Your task to perform on an android device: Go to calendar. Show me events next week Image 0: 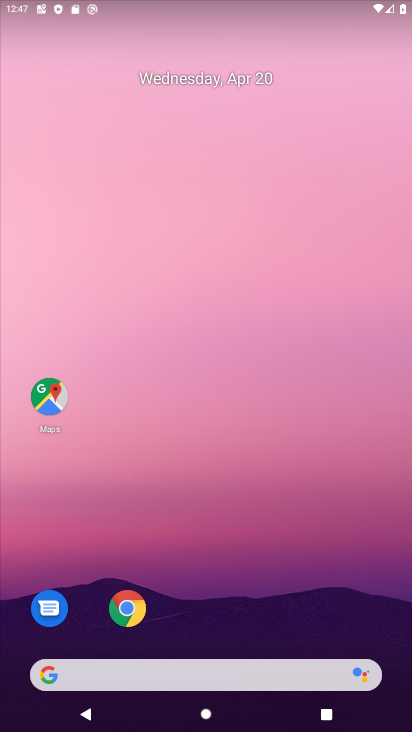
Step 0: drag from (331, 555) to (205, 207)
Your task to perform on an android device: Go to calendar. Show me events next week Image 1: 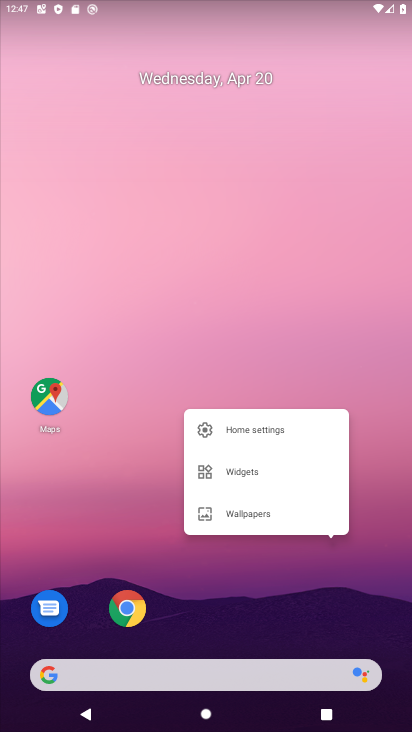
Step 1: click (385, 504)
Your task to perform on an android device: Go to calendar. Show me events next week Image 2: 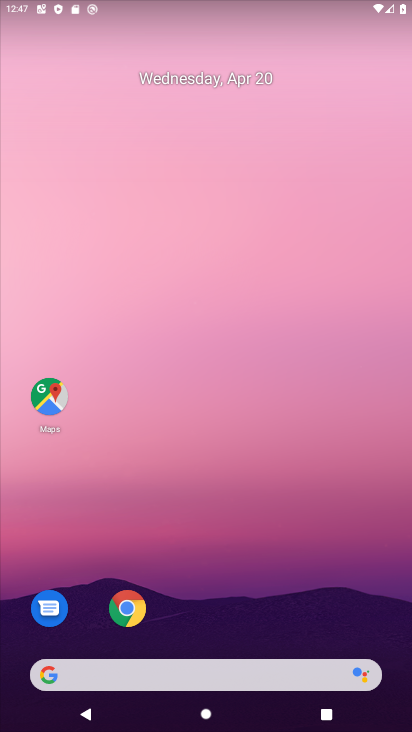
Step 2: drag from (337, 608) to (252, 311)
Your task to perform on an android device: Go to calendar. Show me events next week Image 3: 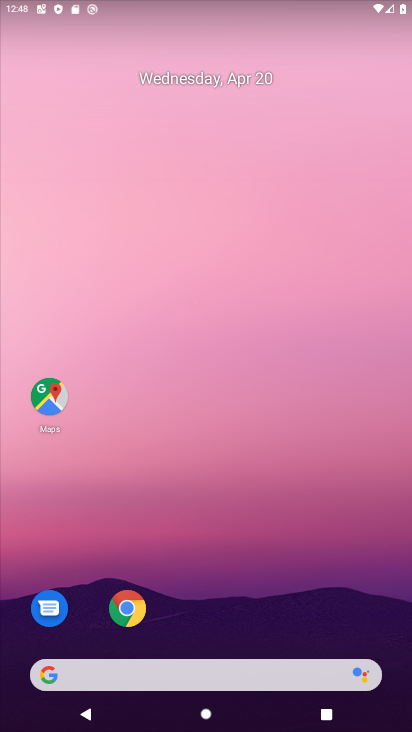
Step 3: drag from (200, 612) to (153, 318)
Your task to perform on an android device: Go to calendar. Show me events next week Image 4: 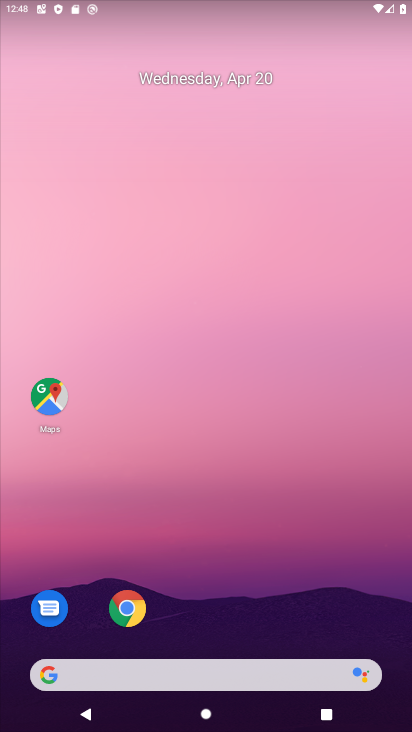
Step 4: drag from (238, 591) to (198, 311)
Your task to perform on an android device: Go to calendar. Show me events next week Image 5: 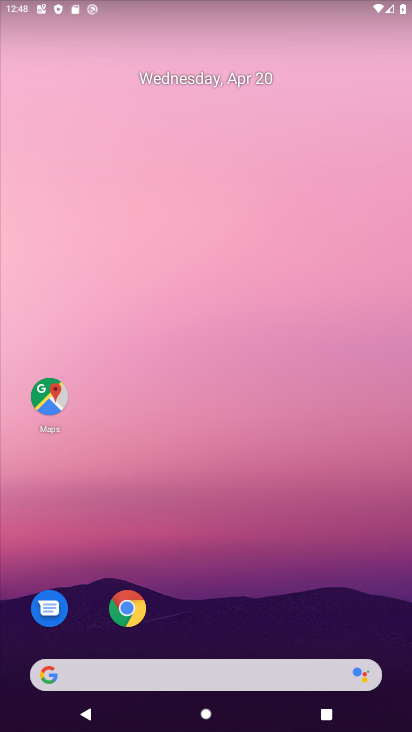
Step 5: drag from (230, 558) to (238, 261)
Your task to perform on an android device: Go to calendar. Show me events next week Image 6: 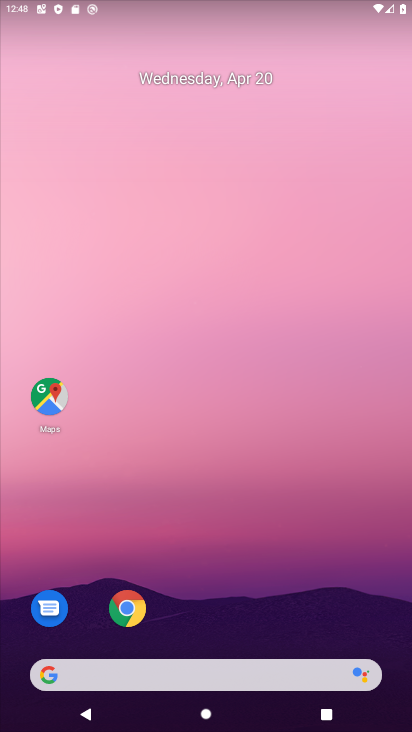
Step 6: drag from (234, 634) to (231, 244)
Your task to perform on an android device: Go to calendar. Show me events next week Image 7: 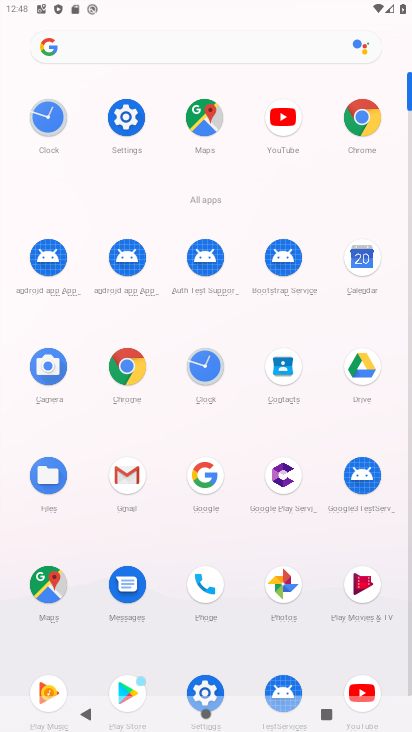
Step 7: click (360, 268)
Your task to perform on an android device: Go to calendar. Show me events next week Image 8: 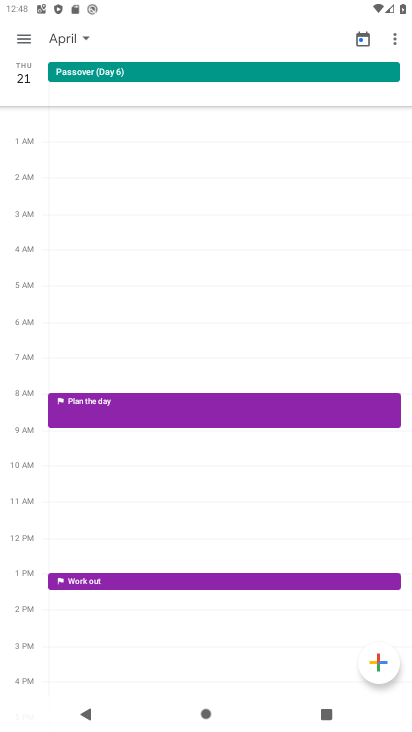
Step 8: click (22, 49)
Your task to perform on an android device: Go to calendar. Show me events next week Image 9: 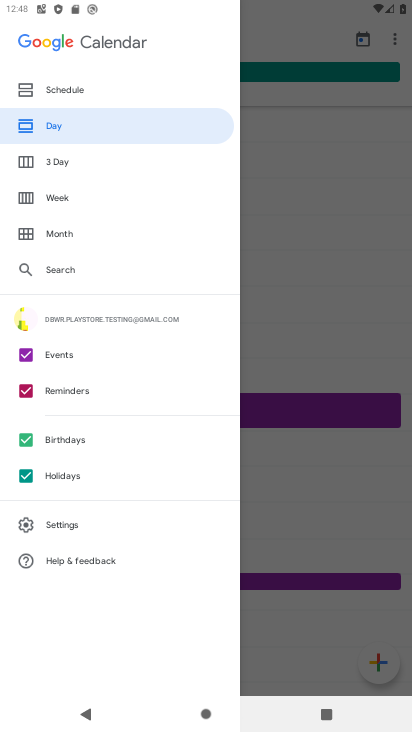
Step 9: click (25, 475)
Your task to perform on an android device: Go to calendar. Show me events next week Image 10: 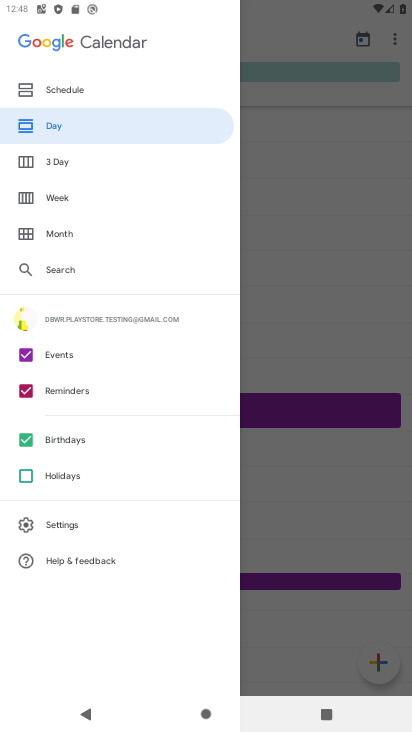
Step 10: click (23, 436)
Your task to perform on an android device: Go to calendar. Show me events next week Image 11: 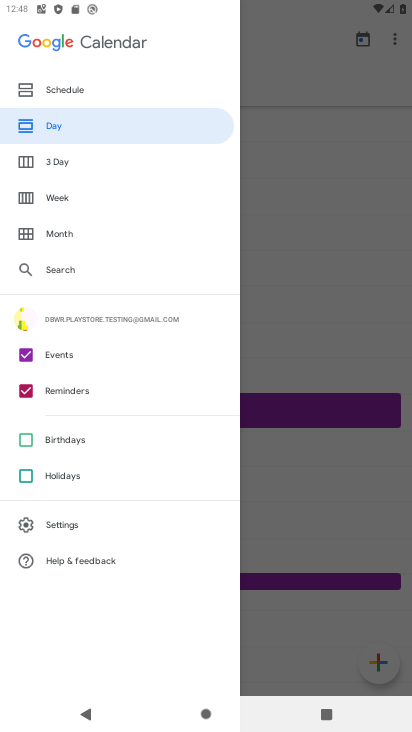
Step 11: click (24, 387)
Your task to perform on an android device: Go to calendar. Show me events next week Image 12: 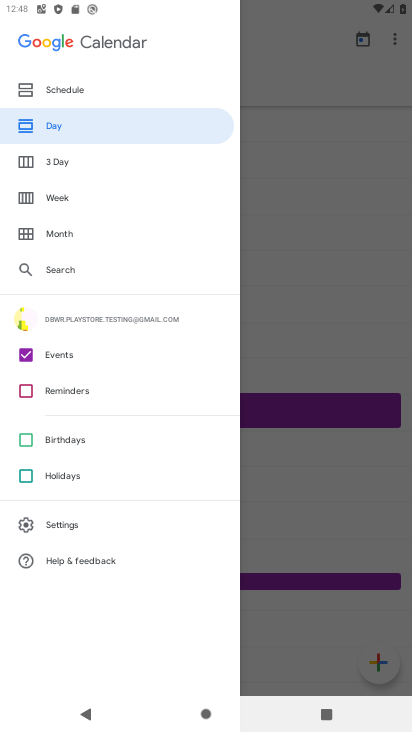
Step 12: click (84, 205)
Your task to perform on an android device: Go to calendar. Show me events next week Image 13: 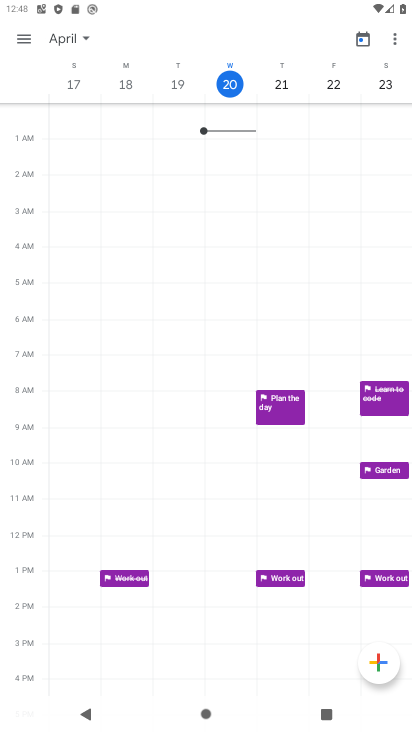
Step 13: click (88, 28)
Your task to perform on an android device: Go to calendar. Show me events next week Image 14: 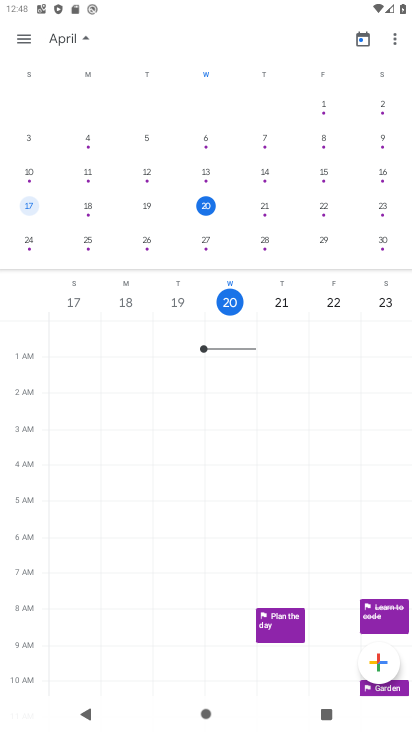
Step 14: click (212, 243)
Your task to perform on an android device: Go to calendar. Show me events next week Image 15: 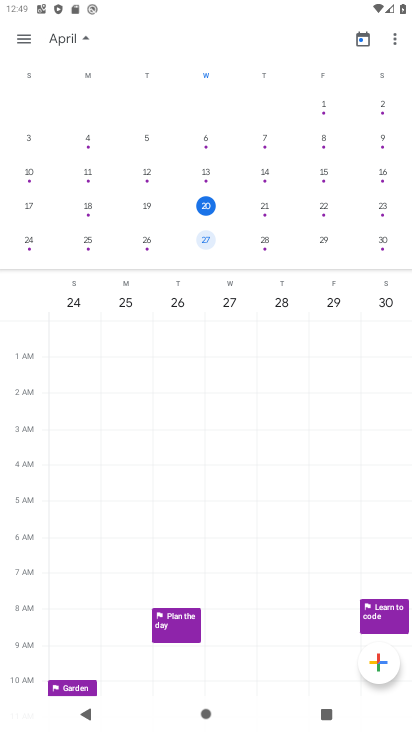
Step 15: task complete